Your task to perform on an android device: turn on notifications settings in the gmail app Image 0: 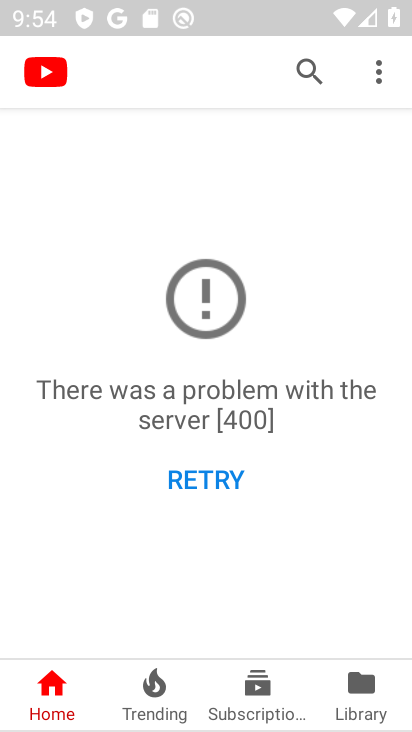
Step 0: task impossible